Your task to perform on an android device: Open Yahoo.com Image 0: 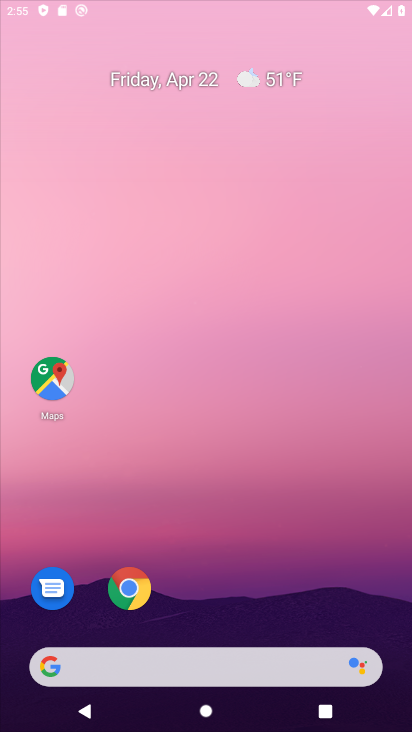
Step 0: click (349, 146)
Your task to perform on an android device: Open Yahoo.com Image 1: 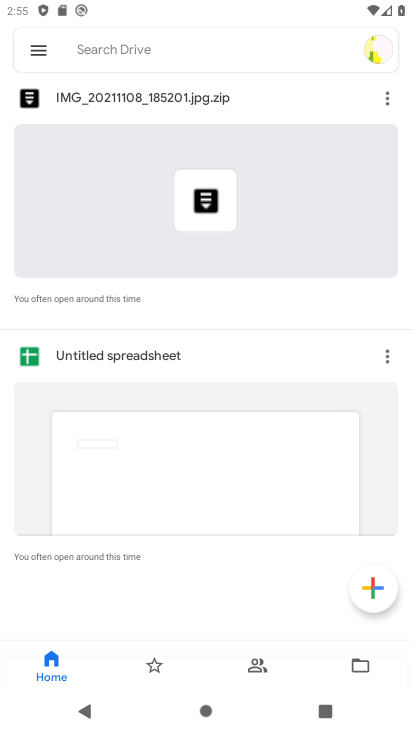
Step 1: press home button
Your task to perform on an android device: Open Yahoo.com Image 2: 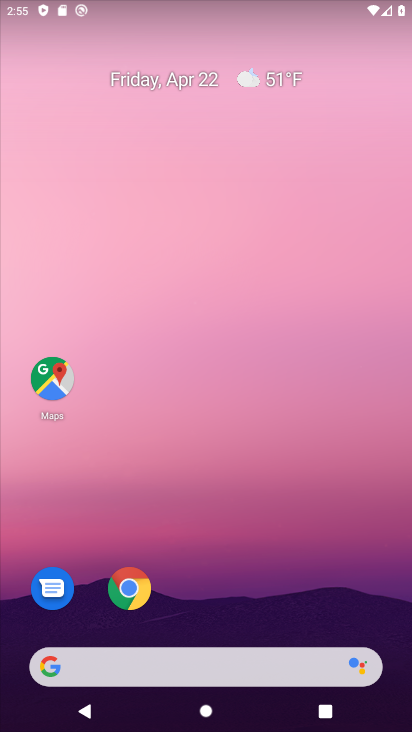
Step 2: drag from (357, 595) to (350, 117)
Your task to perform on an android device: Open Yahoo.com Image 3: 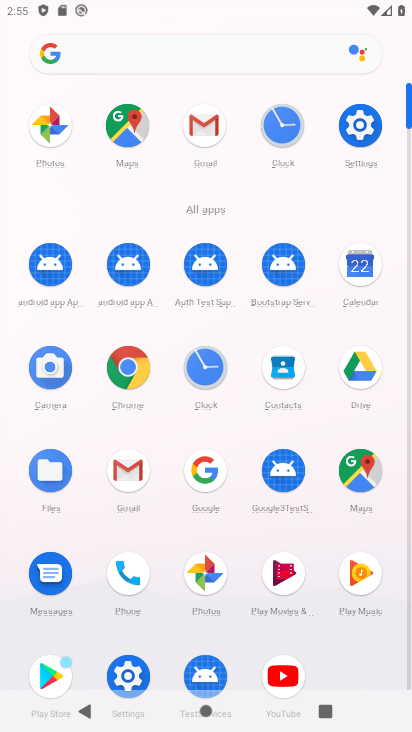
Step 3: click (123, 365)
Your task to perform on an android device: Open Yahoo.com Image 4: 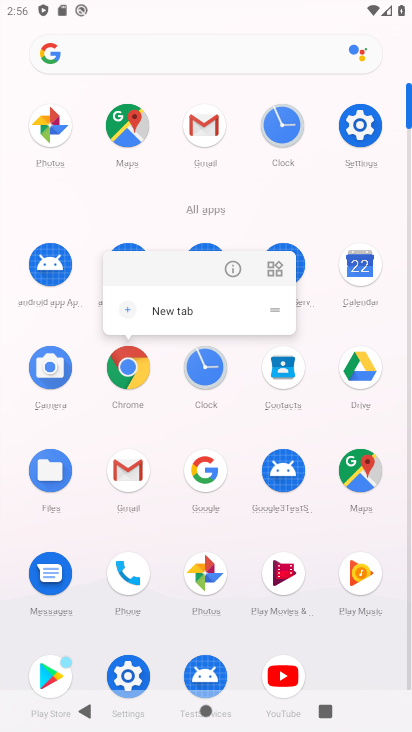
Step 4: click (125, 370)
Your task to perform on an android device: Open Yahoo.com Image 5: 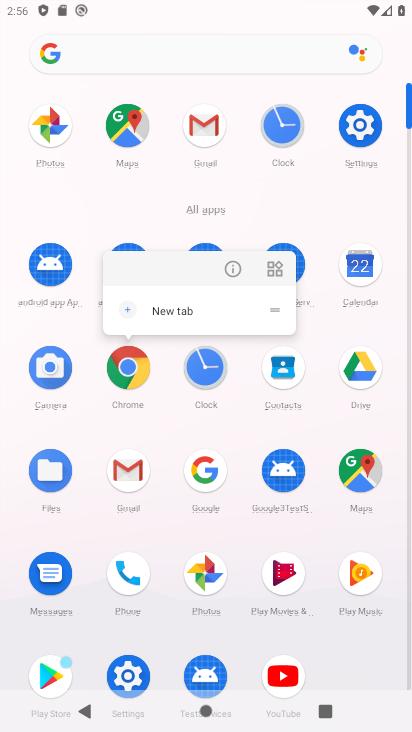
Step 5: click (143, 370)
Your task to perform on an android device: Open Yahoo.com Image 6: 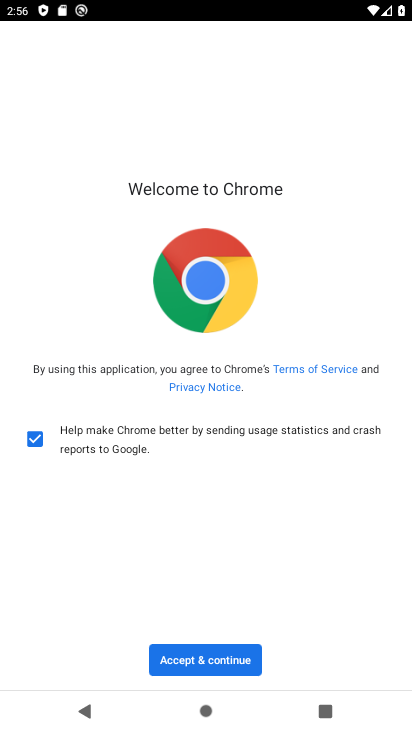
Step 6: click (181, 660)
Your task to perform on an android device: Open Yahoo.com Image 7: 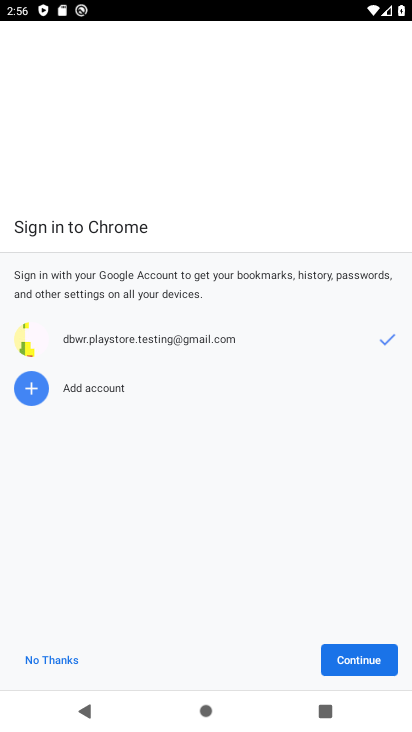
Step 7: click (344, 658)
Your task to perform on an android device: Open Yahoo.com Image 8: 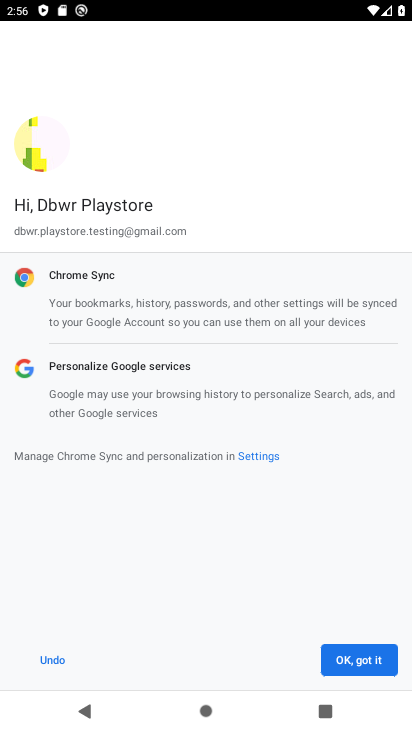
Step 8: click (348, 652)
Your task to perform on an android device: Open Yahoo.com Image 9: 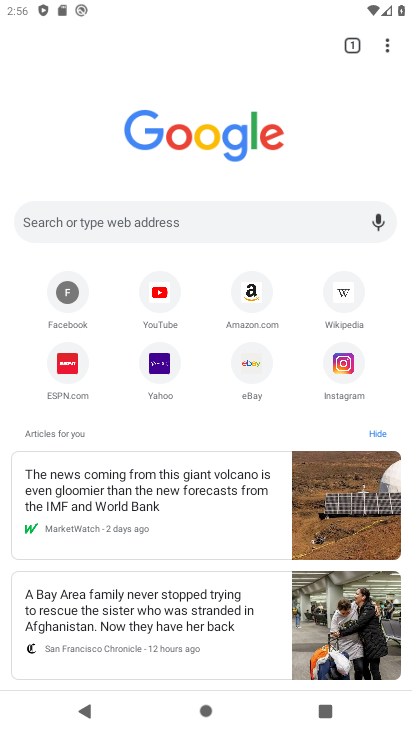
Step 9: click (155, 371)
Your task to perform on an android device: Open Yahoo.com Image 10: 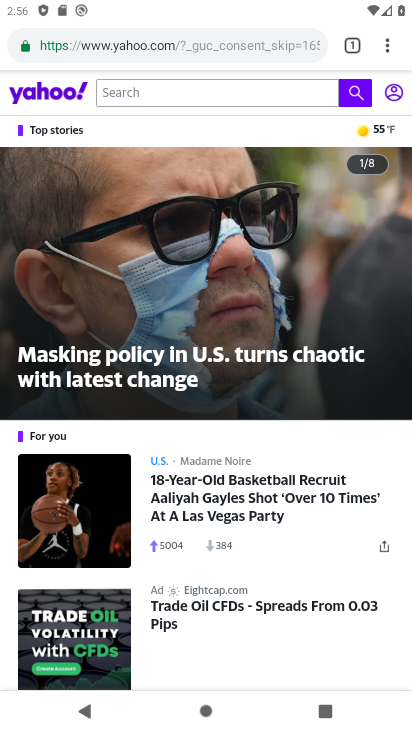
Step 10: task complete